Your task to perform on an android device: turn on improve location accuracy Image 0: 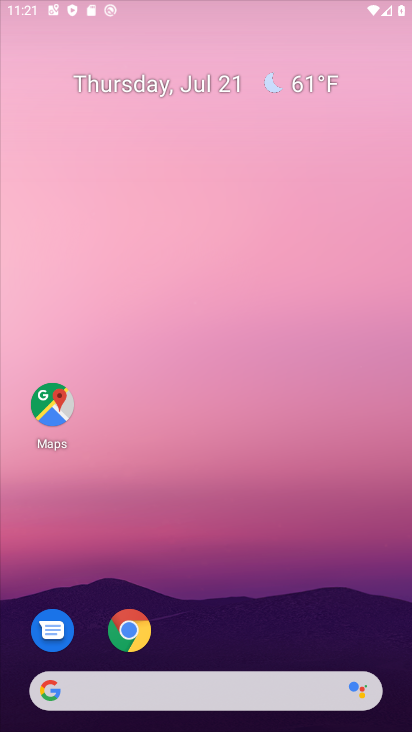
Step 0: drag from (229, 558) to (229, 371)
Your task to perform on an android device: turn on improve location accuracy Image 1: 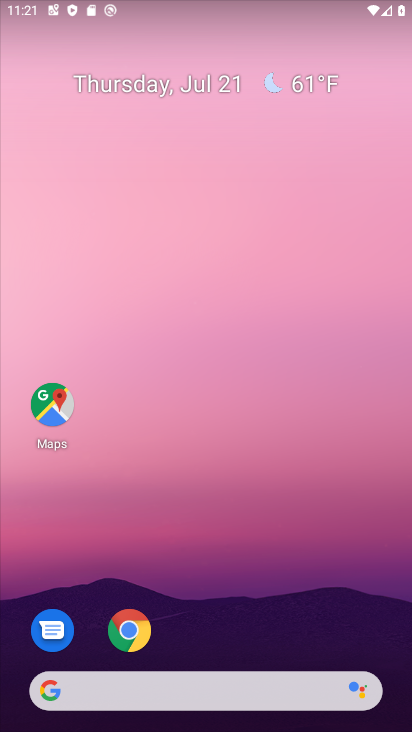
Step 1: drag from (169, 692) to (204, 378)
Your task to perform on an android device: turn on improve location accuracy Image 2: 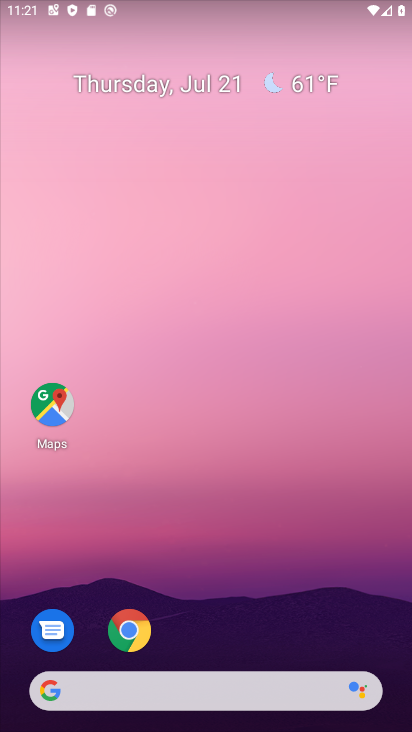
Step 2: drag from (228, 673) to (228, 251)
Your task to perform on an android device: turn on improve location accuracy Image 3: 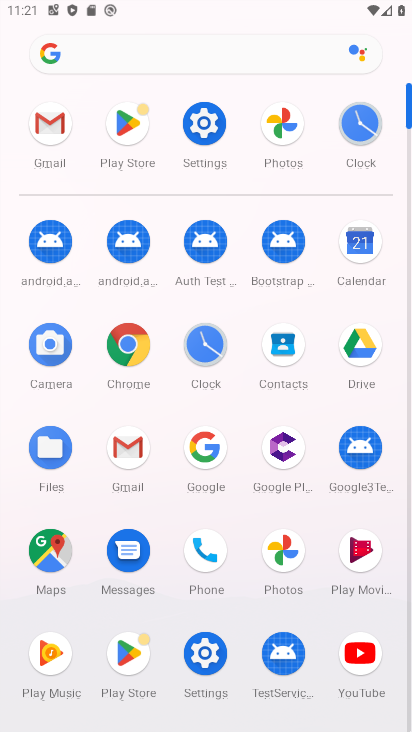
Step 3: click (193, 119)
Your task to perform on an android device: turn on improve location accuracy Image 4: 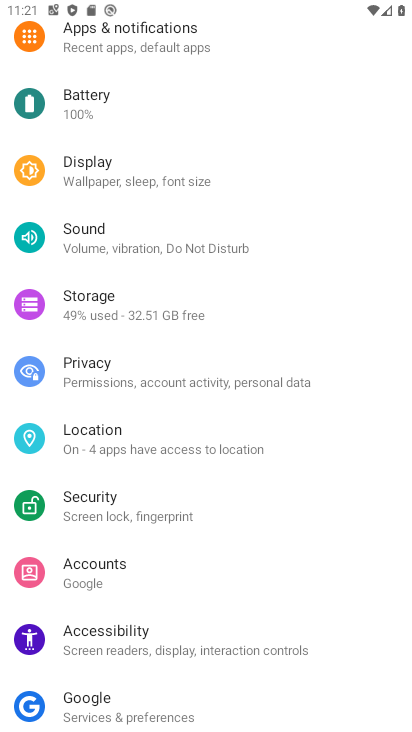
Step 4: click (119, 440)
Your task to perform on an android device: turn on improve location accuracy Image 5: 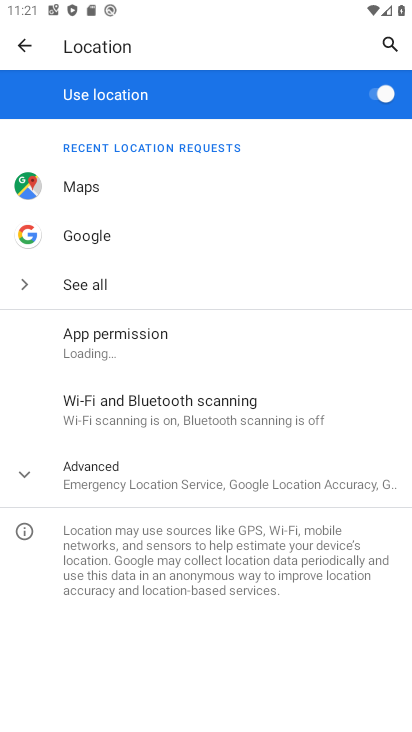
Step 5: click (140, 484)
Your task to perform on an android device: turn on improve location accuracy Image 6: 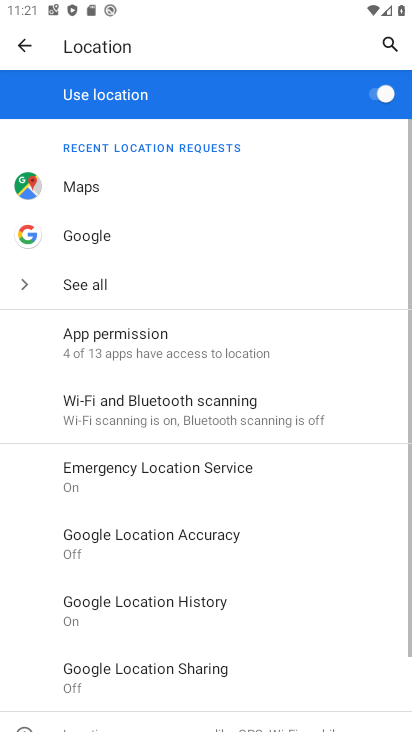
Step 6: click (144, 531)
Your task to perform on an android device: turn on improve location accuracy Image 7: 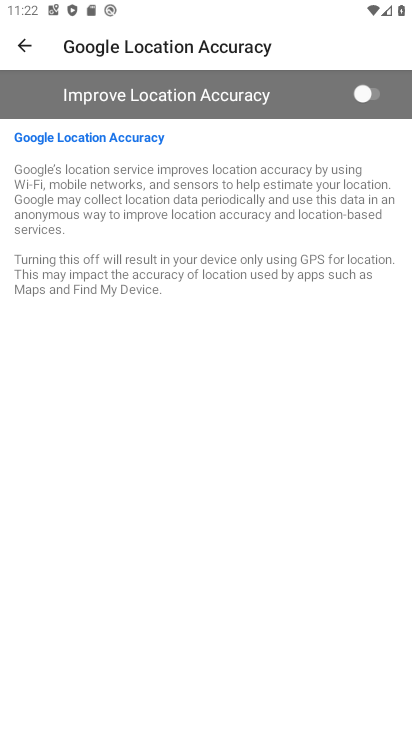
Step 7: click (372, 96)
Your task to perform on an android device: turn on improve location accuracy Image 8: 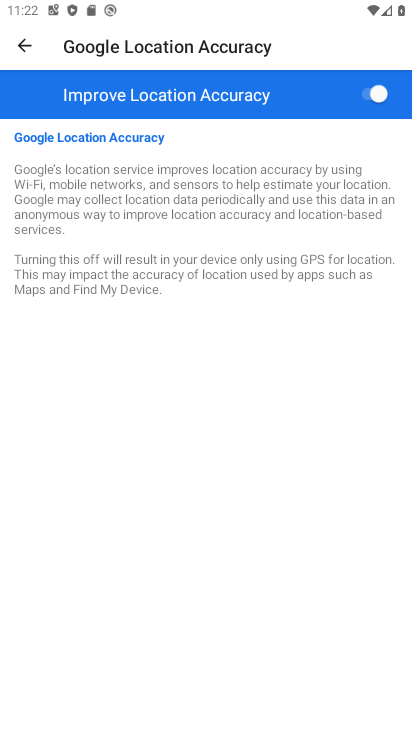
Step 8: task complete